Your task to perform on an android device: change keyboard looks Image 0: 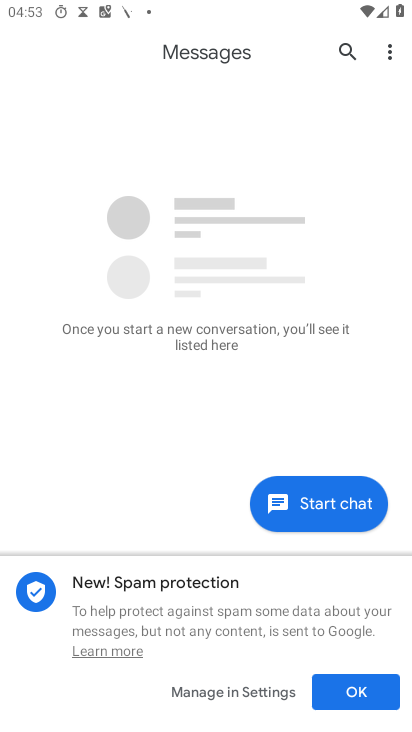
Step 0: press home button
Your task to perform on an android device: change keyboard looks Image 1: 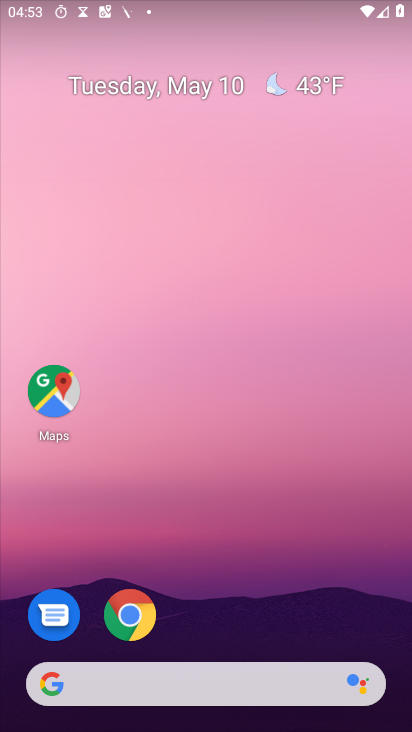
Step 1: drag from (216, 640) to (268, 11)
Your task to perform on an android device: change keyboard looks Image 2: 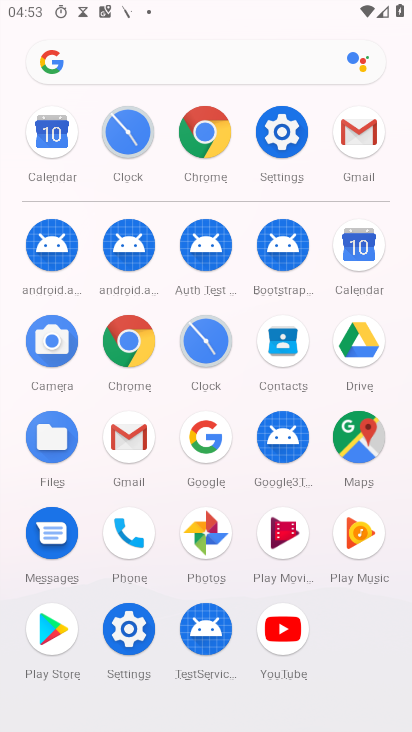
Step 2: click (290, 148)
Your task to perform on an android device: change keyboard looks Image 3: 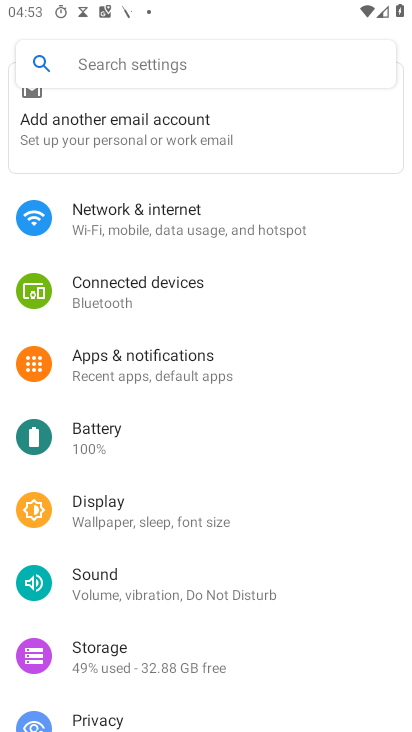
Step 3: drag from (233, 665) to (233, 130)
Your task to perform on an android device: change keyboard looks Image 4: 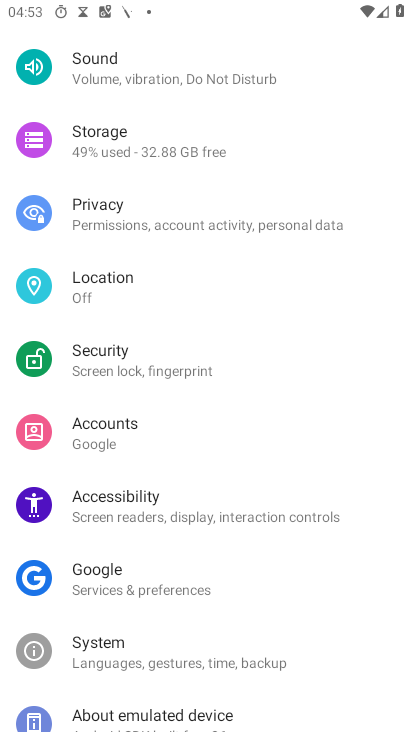
Step 4: drag from (236, 687) to (302, 379)
Your task to perform on an android device: change keyboard looks Image 5: 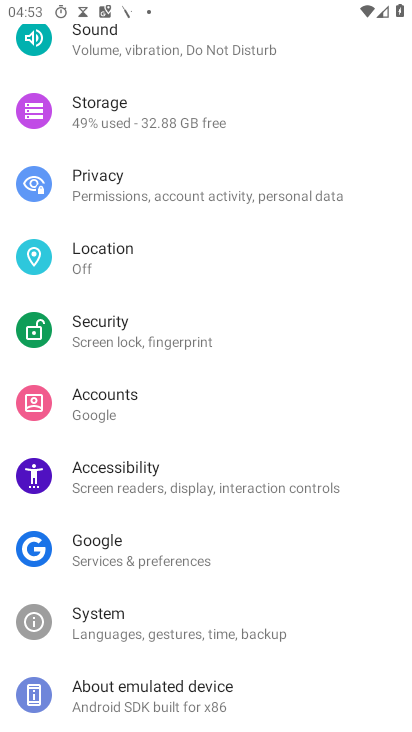
Step 5: click (275, 628)
Your task to perform on an android device: change keyboard looks Image 6: 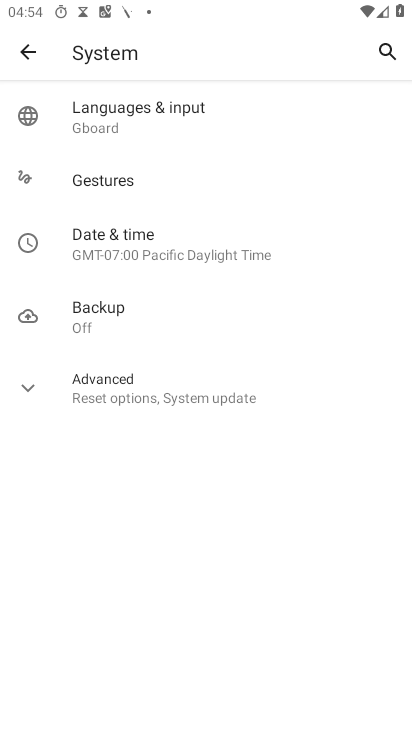
Step 6: click (156, 109)
Your task to perform on an android device: change keyboard looks Image 7: 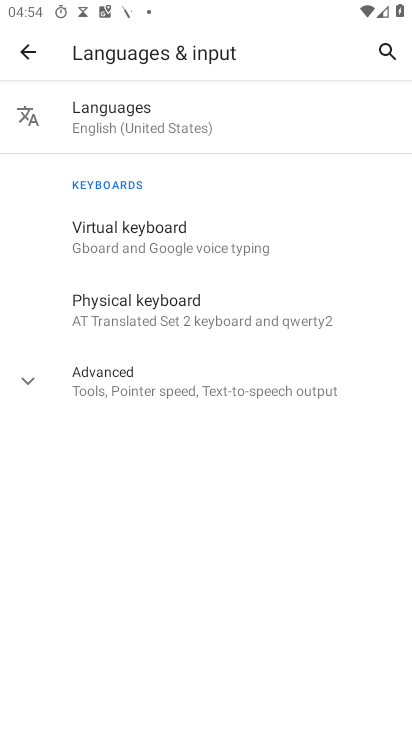
Step 7: click (175, 250)
Your task to perform on an android device: change keyboard looks Image 8: 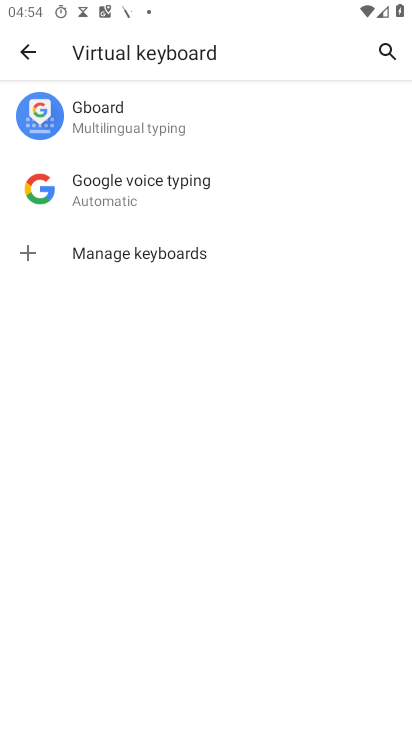
Step 8: click (167, 132)
Your task to perform on an android device: change keyboard looks Image 9: 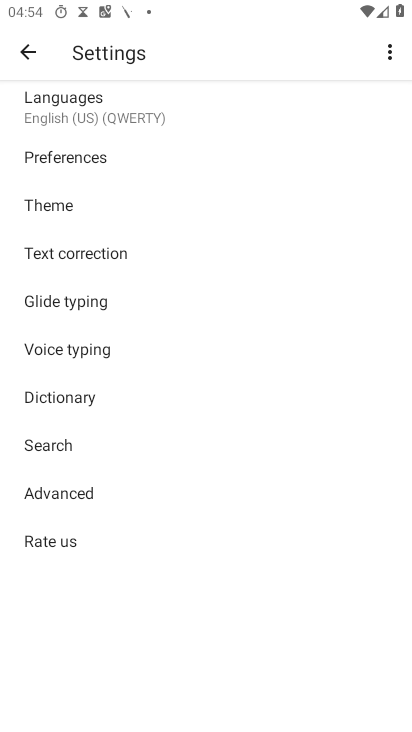
Step 9: click (88, 110)
Your task to perform on an android device: change keyboard looks Image 10: 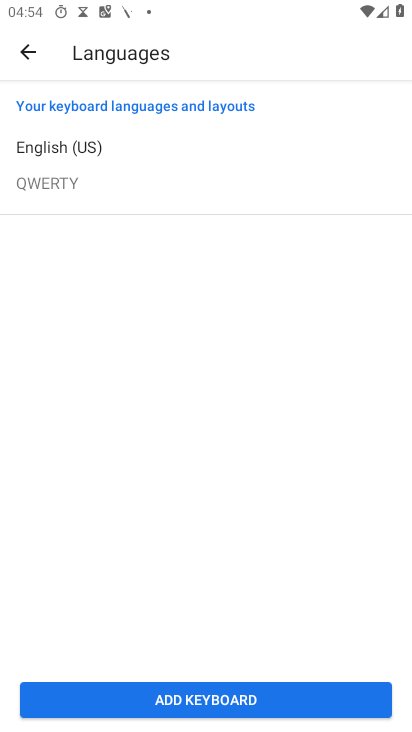
Step 10: click (252, 694)
Your task to perform on an android device: change keyboard looks Image 11: 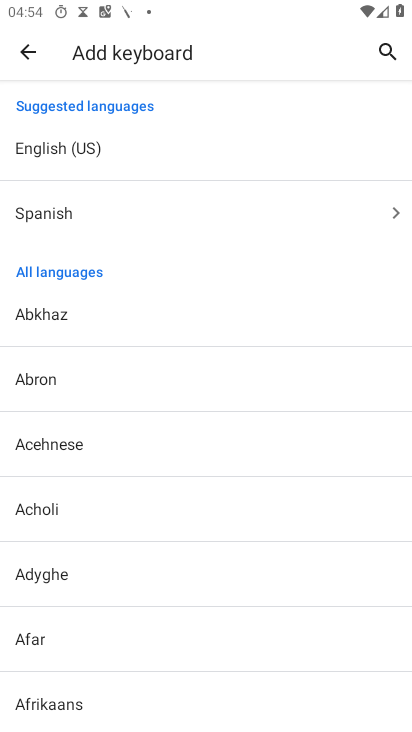
Step 11: press back button
Your task to perform on an android device: change keyboard looks Image 12: 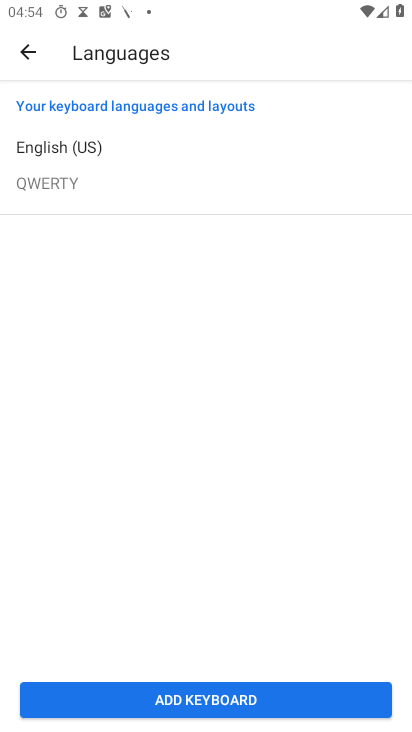
Step 12: press back button
Your task to perform on an android device: change keyboard looks Image 13: 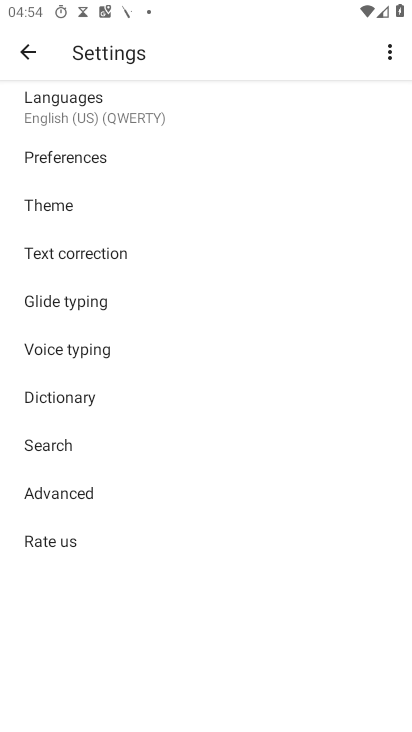
Step 13: click (80, 201)
Your task to perform on an android device: change keyboard looks Image 14: 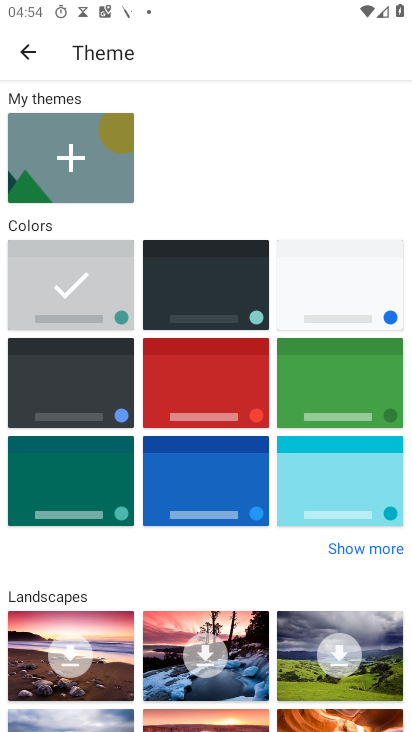
Step 14: click (234, 295)
Your task to perform on an android device: change keyboard looks Image 15: 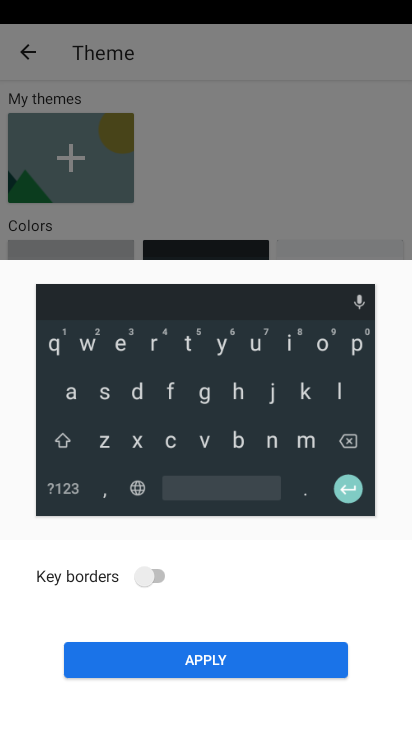
Step 15: click (171, 665)
Your task to perform on an android device: change keyboard looks Image 16: 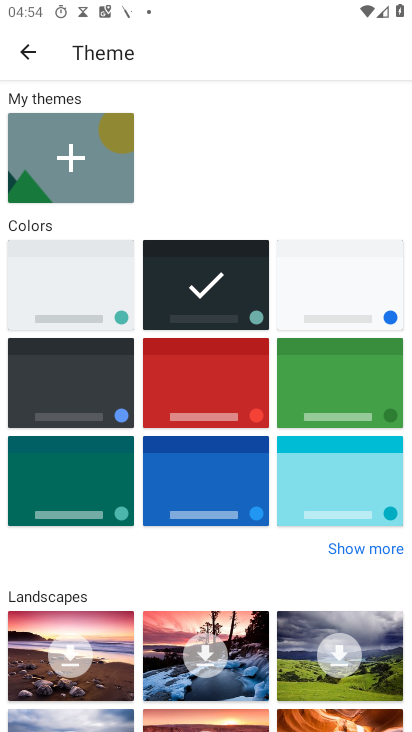
Step 16: task complete